Your task to perform on an android device: check storage Image 0: 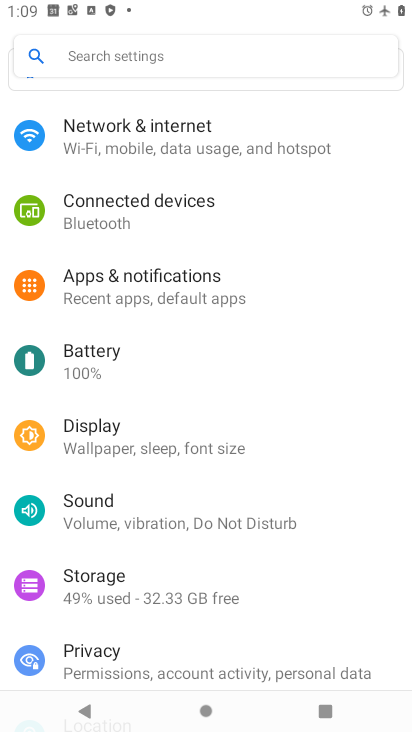
Step 0: press home button
Your task to perform on an android device: check storage Image 1: 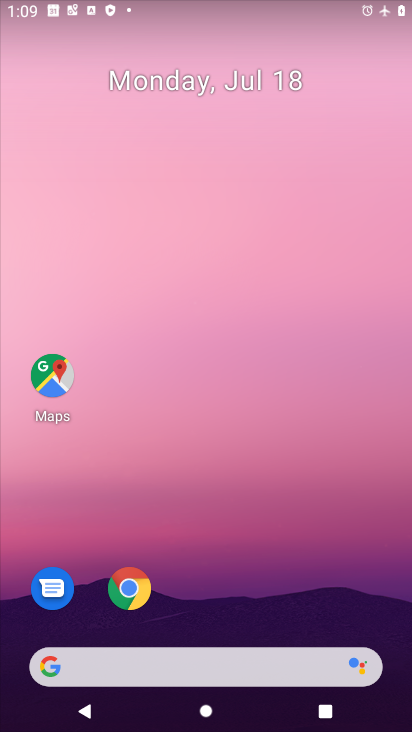
Step 1: drag from (276, 675) to (185, 136)
Your task to perform on an android device: check storage Image 2: 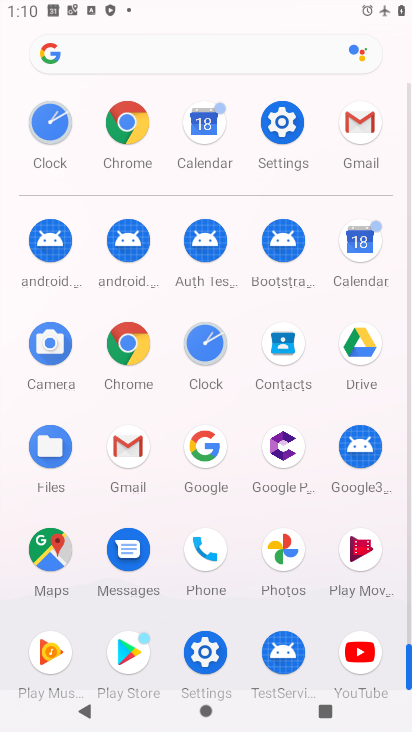
Step 2: click (280, 154)
Your task to perform on an android device: check storage Image 3: 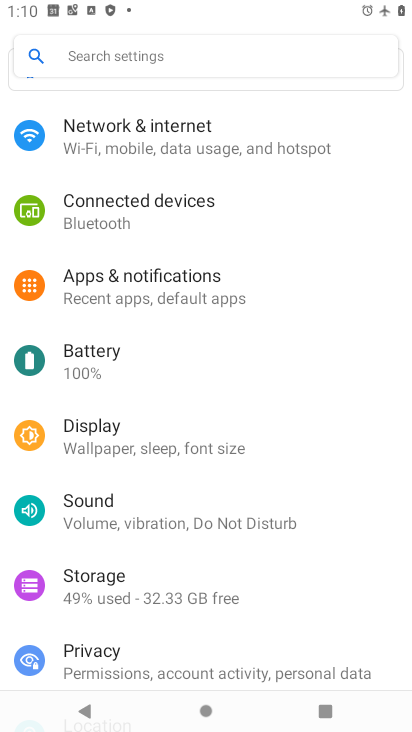
Step 3: click (136, 598)
Your task to perform on an android device: check storage Image 4: 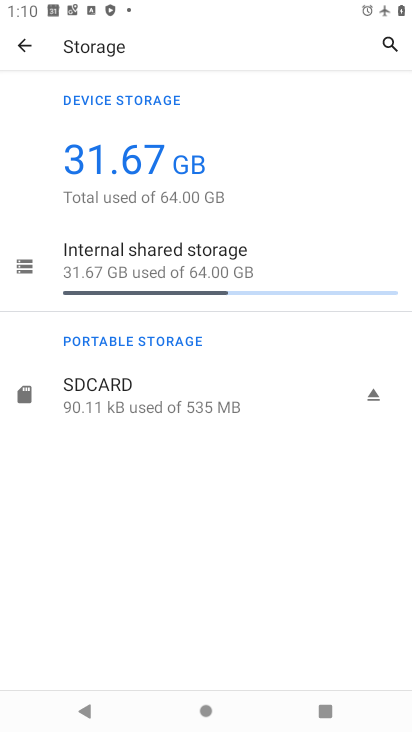
Step 4: click (132, 285)
Your task to perform on an android device: check storage Image 5: 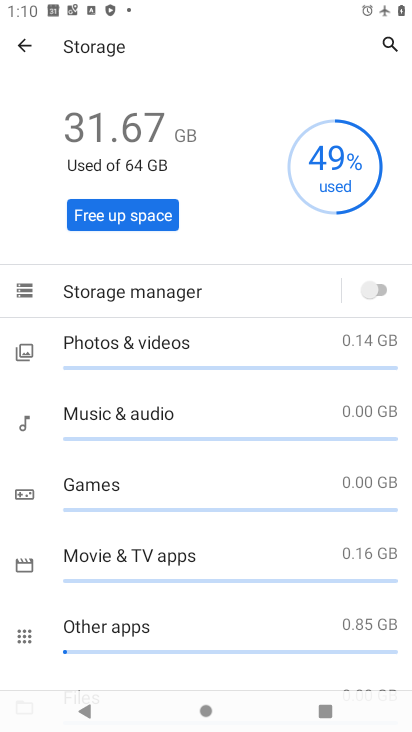
Step 5: task complete